Your task to perform on an android device: What's the weather going to be this weekend? Image 0: 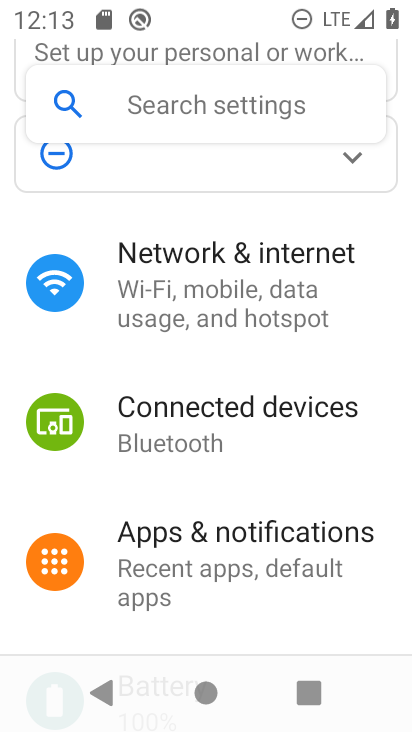
Step 0: press home button
Your task to perform on an android device: What's the weather going to be this weekend? Image 1: 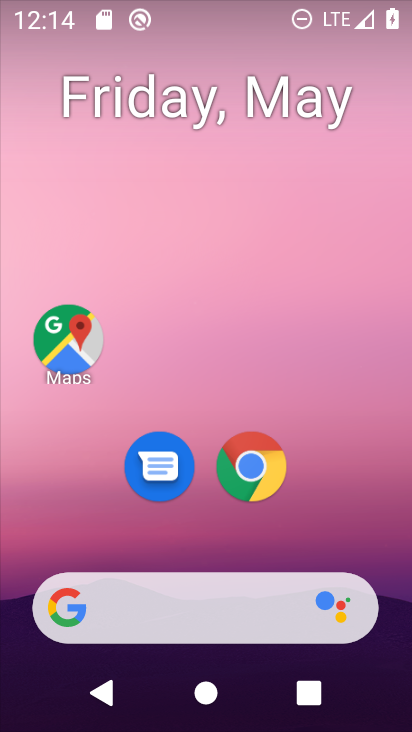
Step 1: drag from (53, 620) to (79, 26)
Your task to perform on an android device: What's the weather going to be this weekend? Image 2: 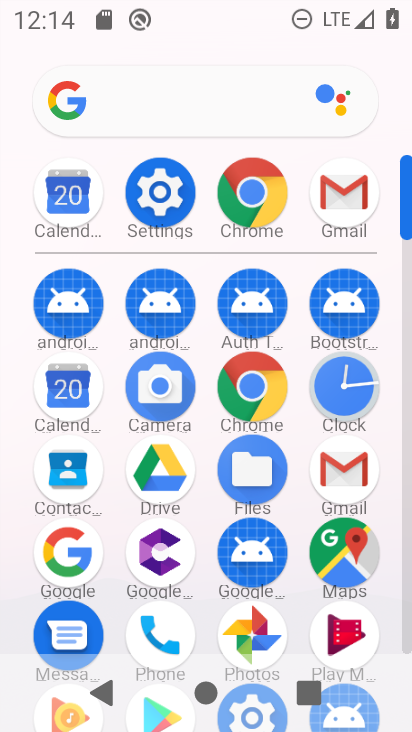
Step 2: press home button
Your task to perform on an android device: What's the weather going to be this weekend? Image 3: 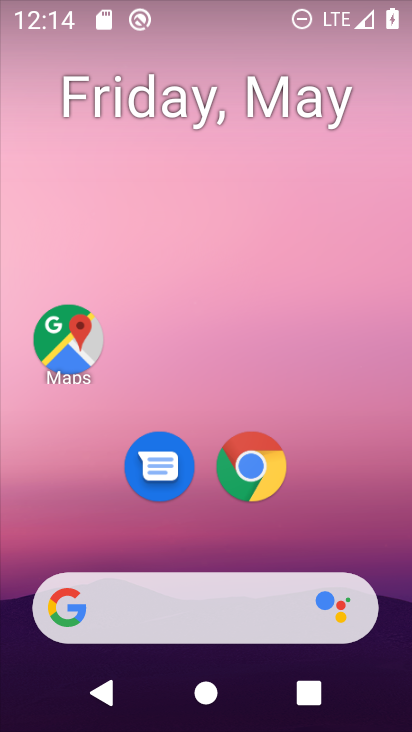
Step 3: drag from (40, 254) to (410, 254)
Your task to perform on an android device: What's the weather going to be this weekend? Image 4: 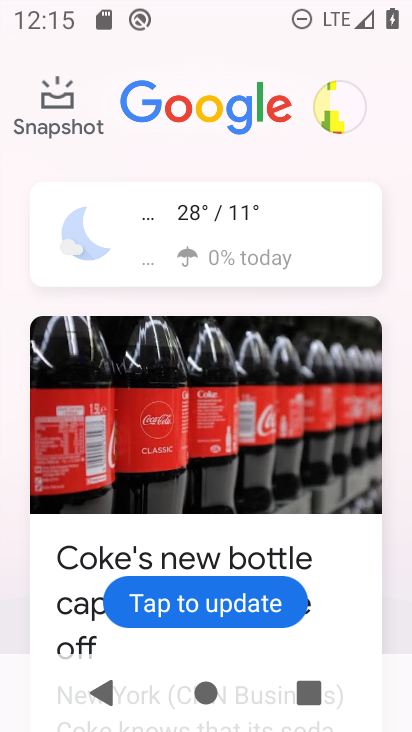
Step 4: click (253, 232)
Your task to perform on an android device: What's the weather going to be this weekend? Image 5: 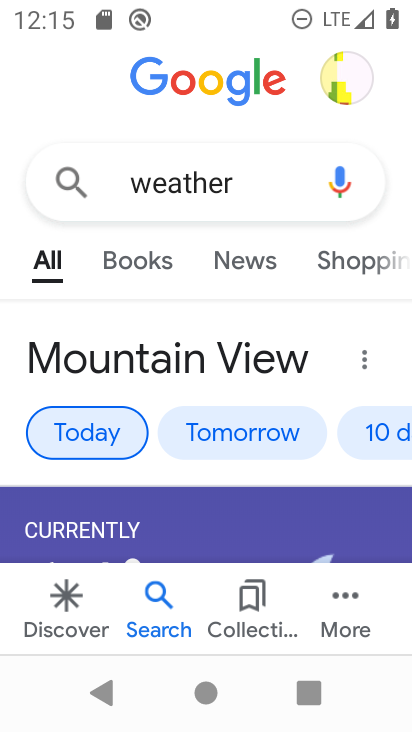
Step 5: click (388, 446)
Your task to perform on an android device: What's the weather going to be this weekend? Image 6: 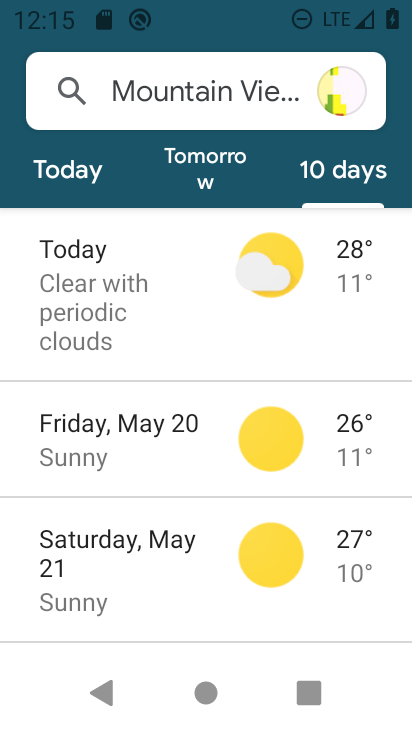
Step 6: task complete